Your task to perform on an android device: What's the weather going to be tomorrow? Image 0: 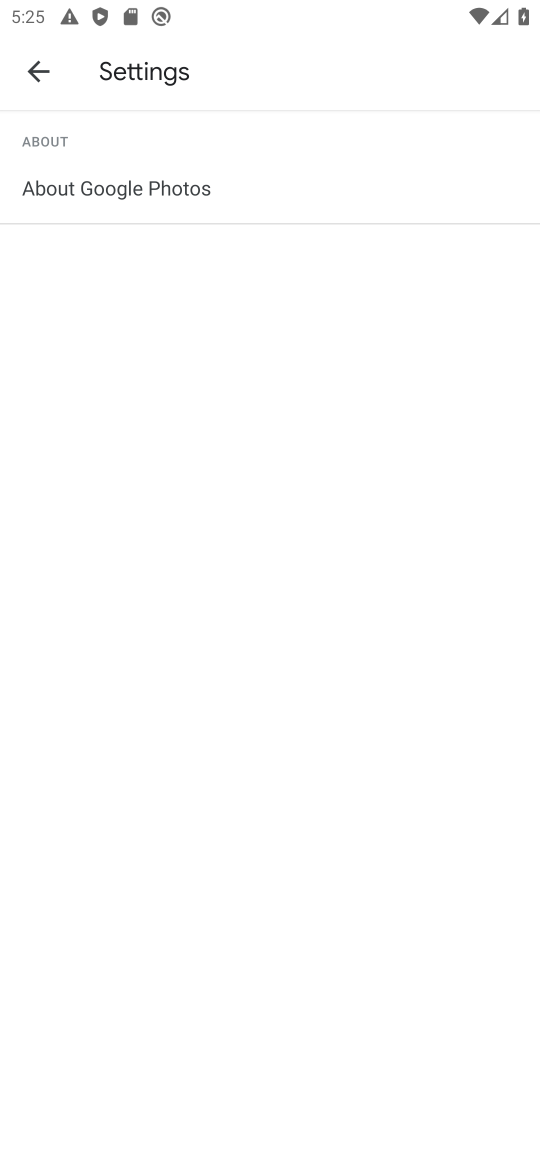
Step 0: press home button
Your task to perform on an android device: What's the weather going to be tomorrow? Image 1: 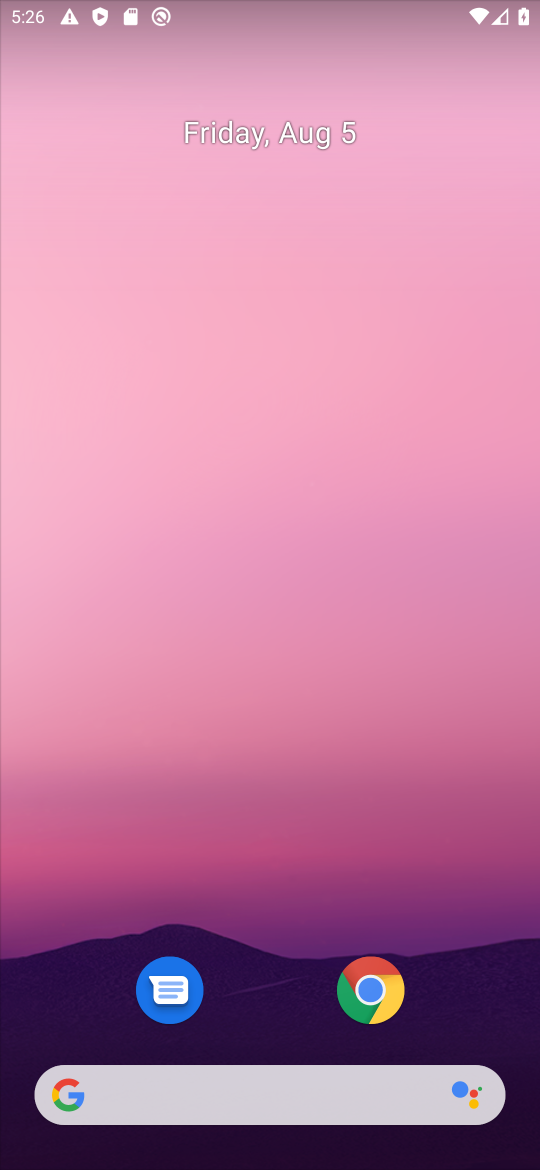
Step 1: drag from (177, 1061) to (177, 464)
Your task to perform on an android device: What's the weather going to be tomorrow? Image 2: 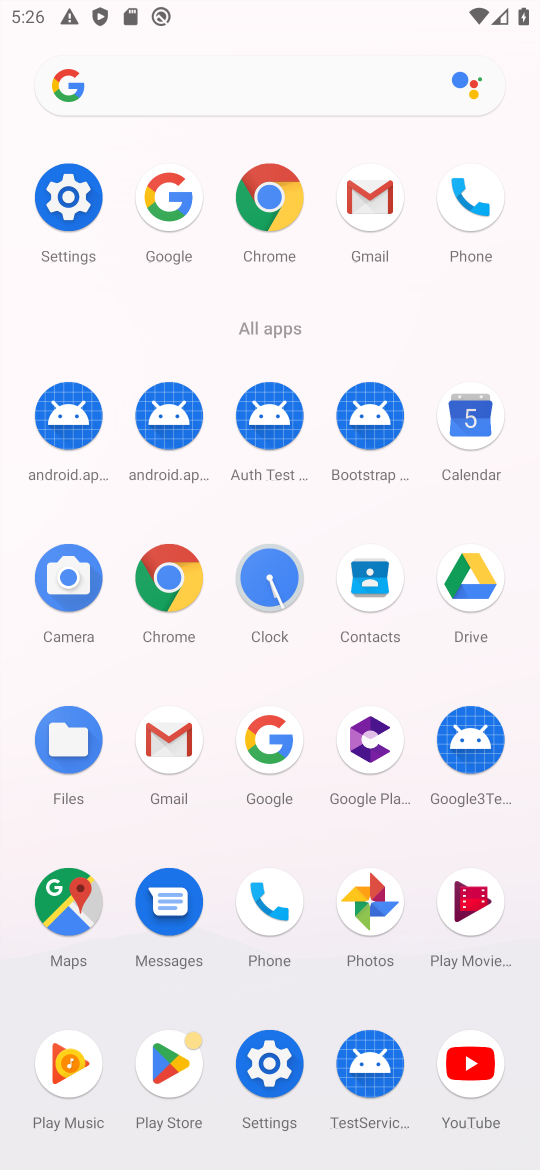
Step 2: click (264, 749)
Your task to perform on an android device: What's the weather going to be tomorrow? Image 3: 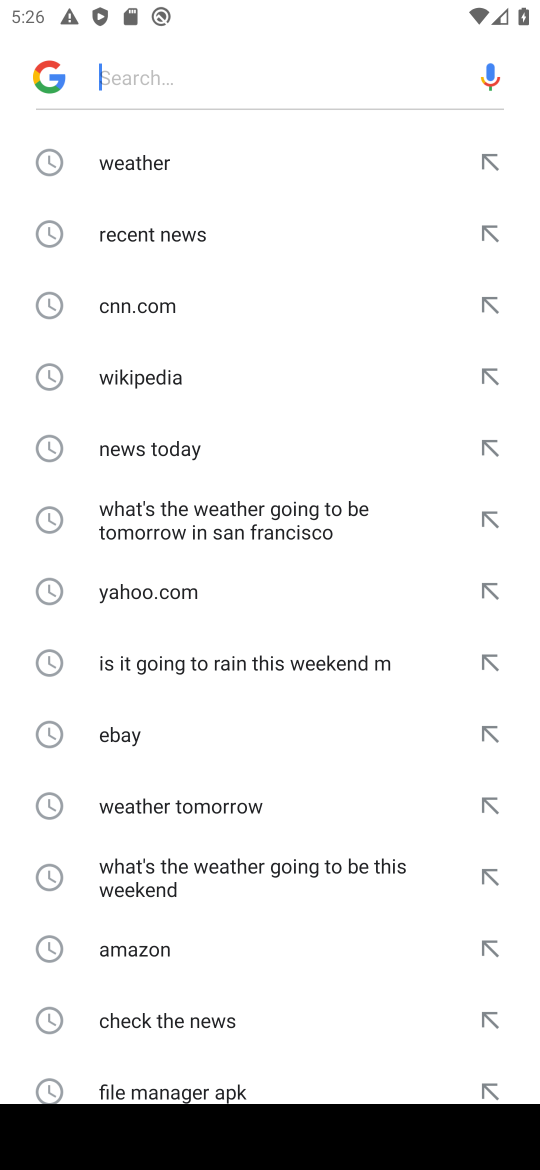
Step 3: click (149, 505)
Your task to perform on an android device: What's the weather going to be tomorrow? Image 4: 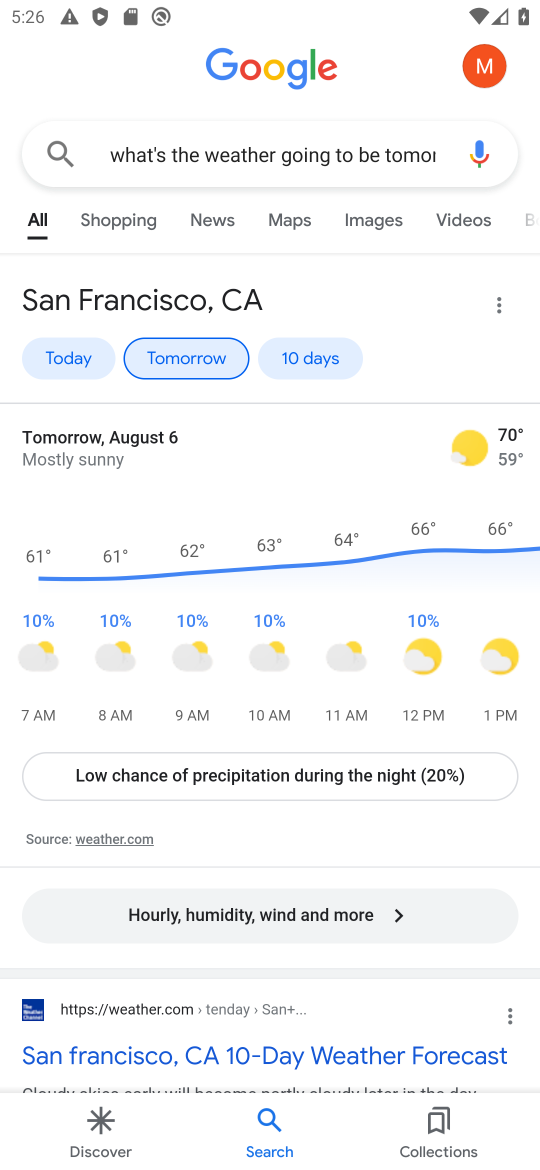
Step 4: task complete